Your task to perform on an android device: What's on my calendar today? Image 0: 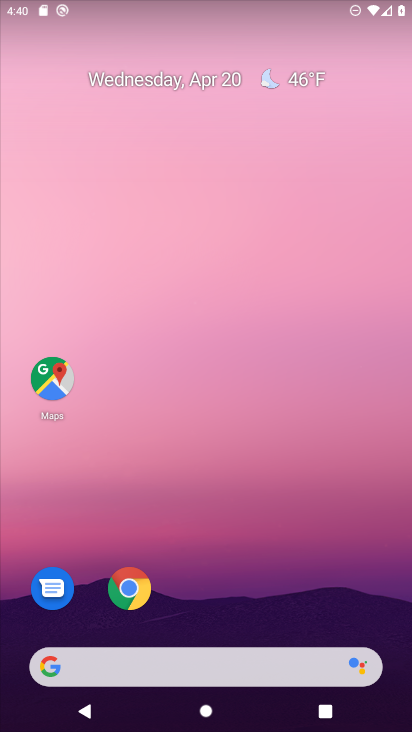
Step 0: drag from (209, 696) to (188, 175)
Your task to perform on an android device: What's on my calendar today? Image 1: 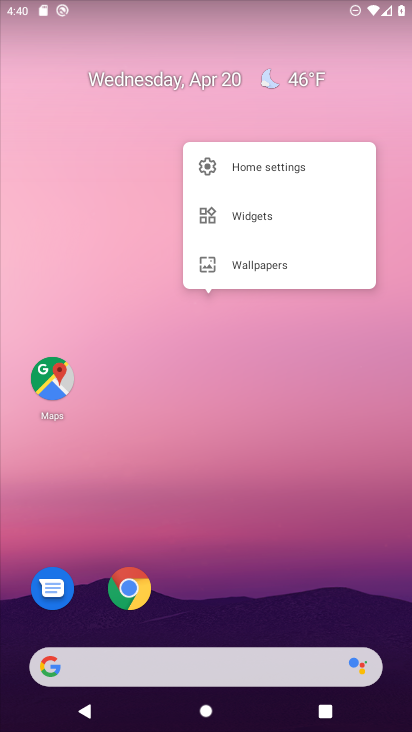
Step 1: click (223, 382)
Your task to perform on an android device: What's on my calendar today? Image 2: 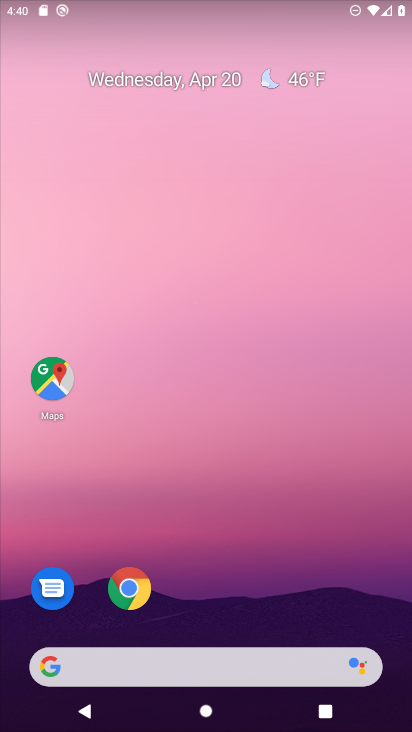
Step 2: drag from (210, 556) to (209, 212)
Your task to perform on an android device: What's on my calendar today? Image 3: 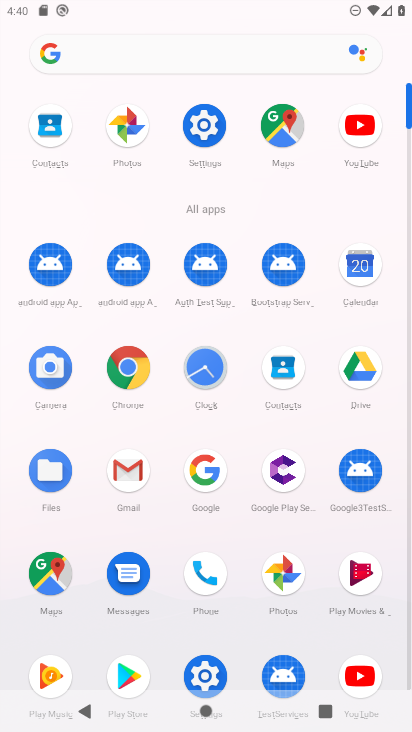
Step 3: click (359, 270)
Your task to perform on an android device: What's on my calendar today? Image 4: 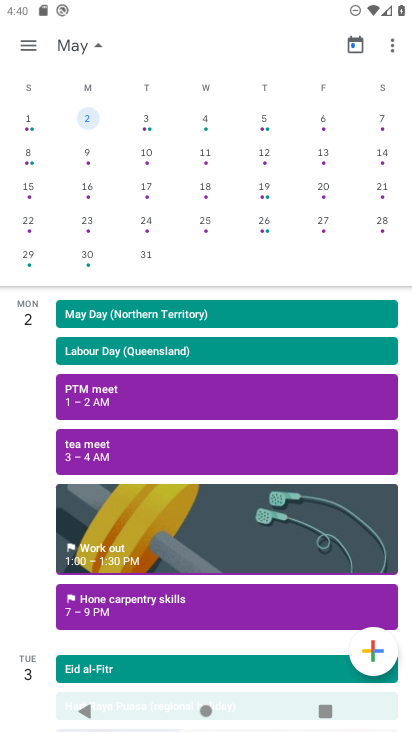
Step 4: drag from (59, 163) to (389, 180)
Your task to perform on an android device: What's on my calendar today? Image 5: 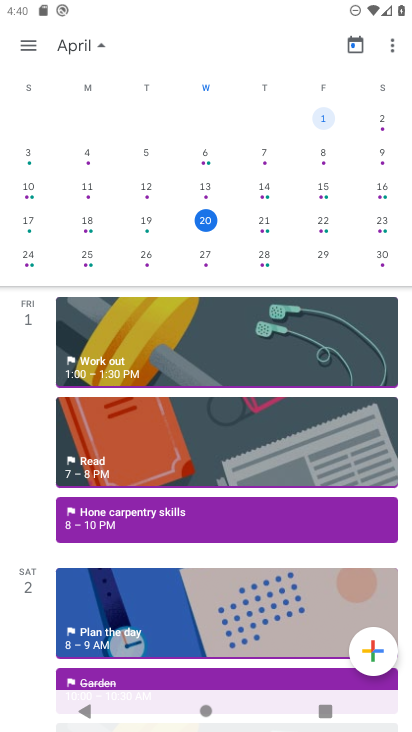
Step 5: click (204, 219)
Your task to perform on an android device: What's on my calendar today? Image 6: 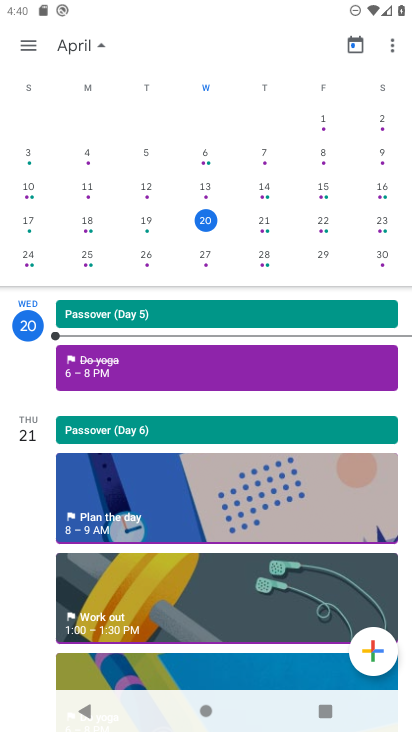
Step 6: task complete